Your task to perform on an android device: Search for Mexican restaurants on Maps Image 0: 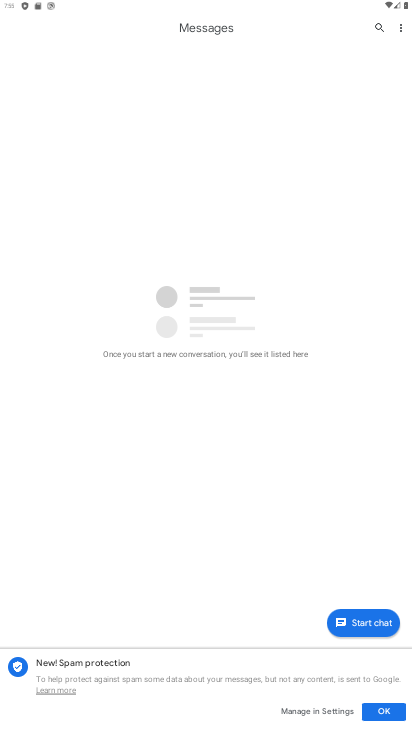
Step 0: press home button
Your task to perform on an android device: Search for Mexican restaurants on Maps Image 1: 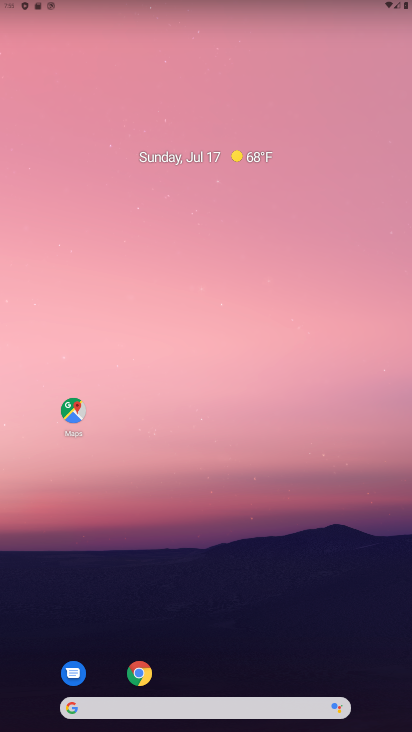
Step 1: drag from (287, 673) to (219, 19)
Your task to perform on an android device: Search for Mexican restaurants on Maps Image 2: 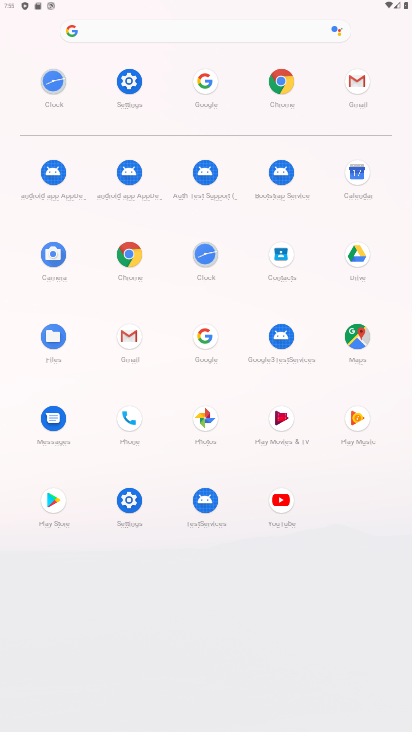
Step 2: click (356, 342)
Your task to perform on an android device: Search for Mexican restaurants on Maps Image 3: 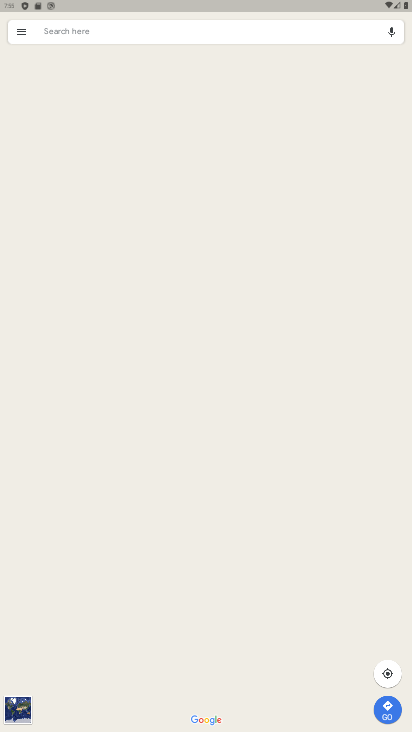
Step 3: click (169, 35)
Your task to perform on an android device: Search for Mexican restaurants on Maps Image 4: 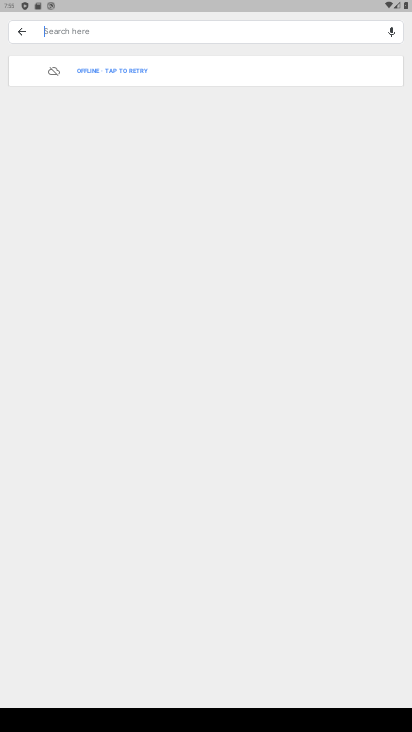
Step 4: type "Mexican restaurants"
Your task to perform on an android device: Search for Mexican restaurants on Maps Image 5: 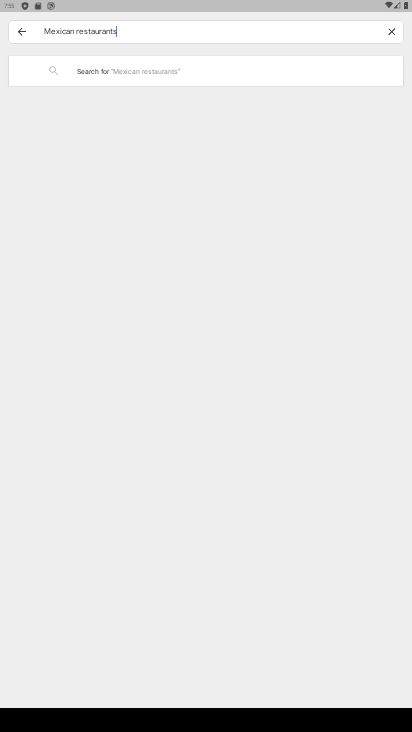
Step 5: press enter
Your task to perform on an android device: Search for Mexican restaurants on Maps Image 6: 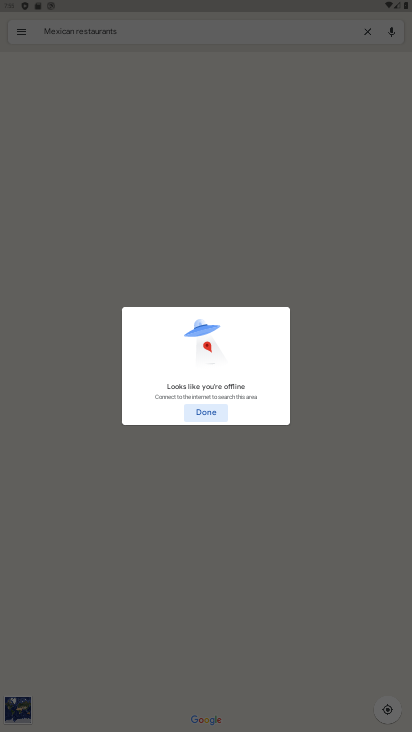
Step 6: task complete